Your task to perform on an android device: Open the calendar and show me this week's events Image 0: 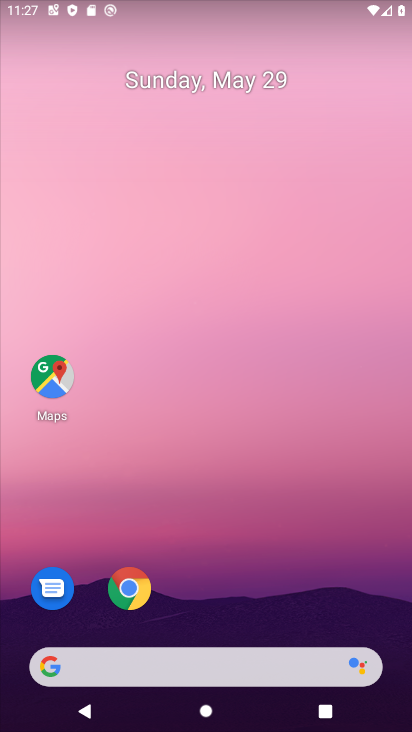
Step 0: drag from (352, 601) to (409, 54)
Your task to perform on an android device: Open the calendar and show me this week's events Image 1: 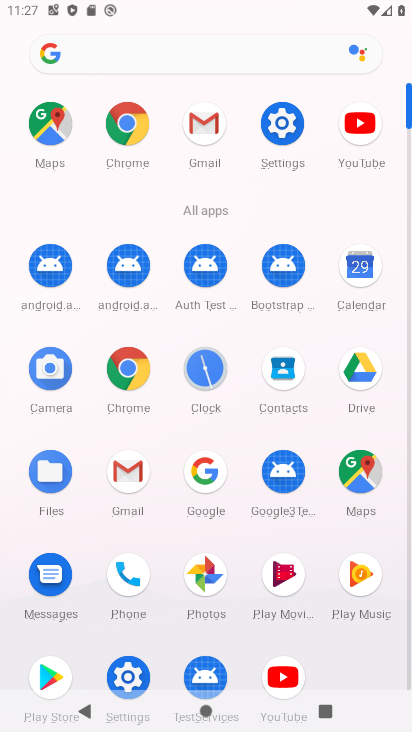
Step 1: click (361, 282)
Your task to perform on an android device: Open the calendar and show me this week's events Image 2: 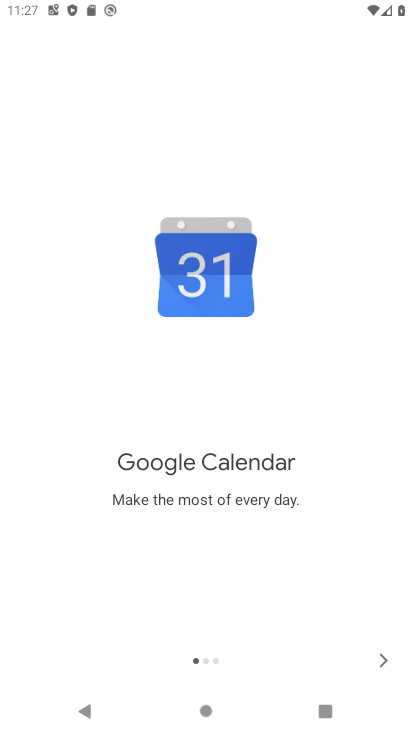
Step 2: click (384, 670)
Your task to perform on an android device: Open the calendar and show me this week's events Image 3: 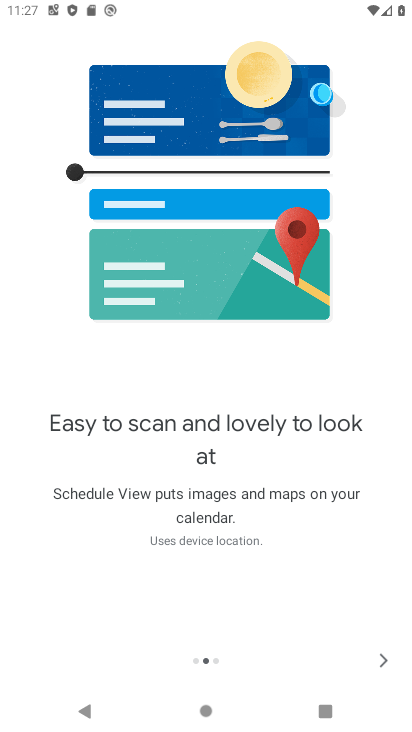
Step 3: click (383, 675)
Your task to perform on an android device: Open the calendar and show me this week's events Image 4: 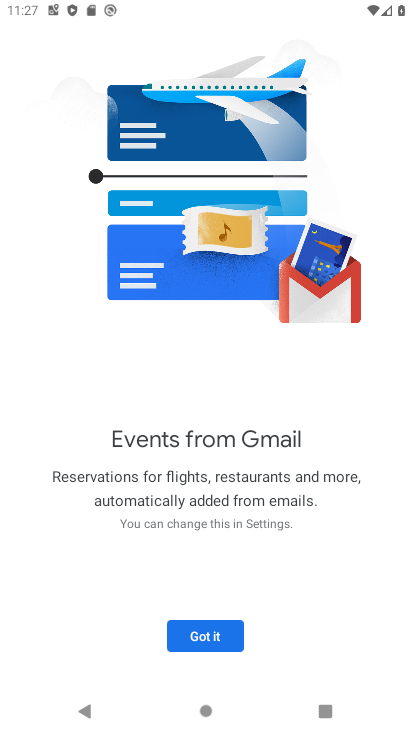
Step 4: click (238, 634)
Your task to perform on an android device: Open the calendar and show me this week's events Image 5: 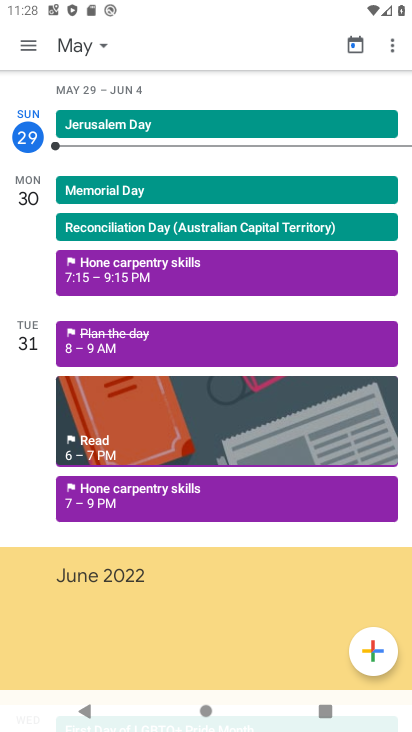
Step 5: click (82, 45)
Your task to perform on an android device: Open the calendar and show me this week's events Image 6: 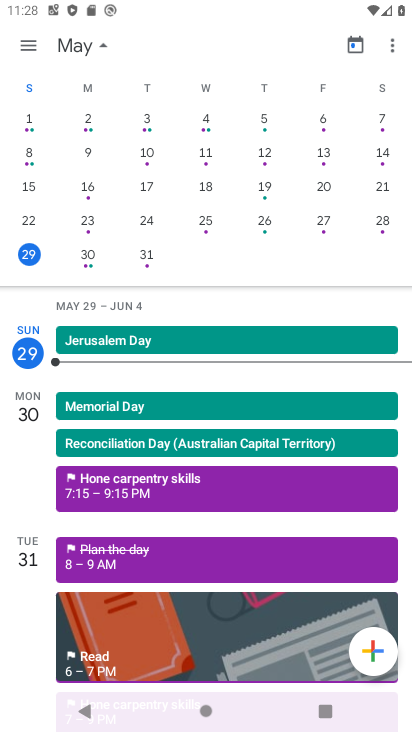
Step 6: click (85, 261)
Your task to perform on an android device: Open the calendar and show me this week's events Image 7: 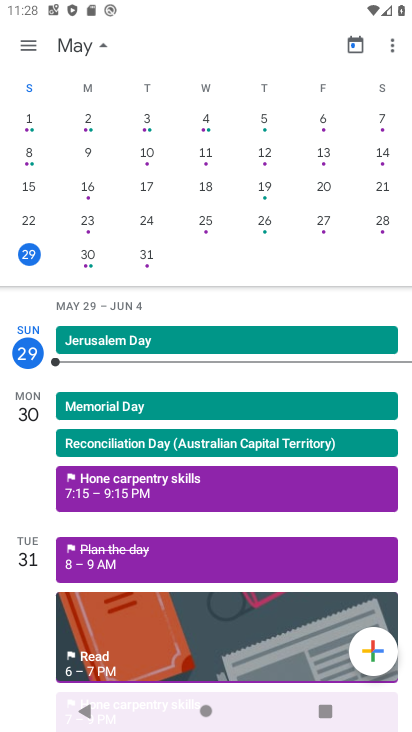
Step 7: task complete